Your task to perform on an android device: uninstall "Expedia: Hotels, Flights & Car" Image 0: 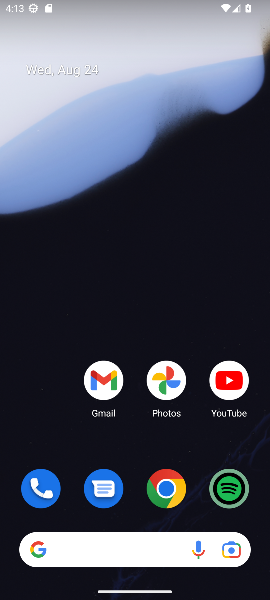
Step 0: drag from (135, 522) to (117, 17)
Your task to perform on an android device: uninstall "Expedia: Hotels, Flights & Car" Image 1: 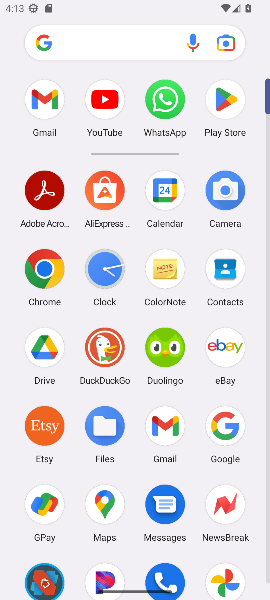
Step 1: click (230, 99)
Your task to perform on an android device: uninstall "Expedia: Hotels, Flights & Car" Image 2: 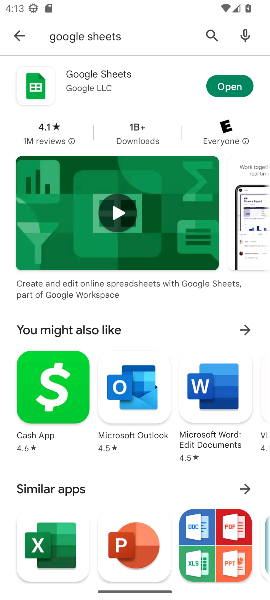
Step 2: click (204, 40)
Your task to perform on an android device: uninstall "Expedia: Hotels, Flights & Car" Image 3: 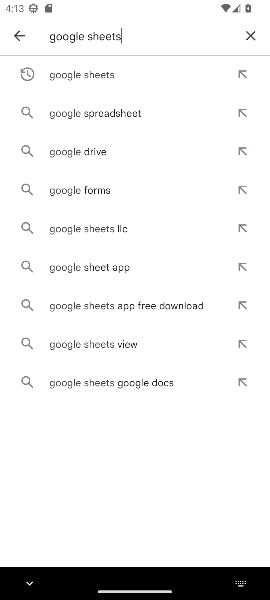
Step 3: click (248, 29)
Your task to perform on an android device: uninstall "Expedia: Hotels, Flights & Car" Image 4: 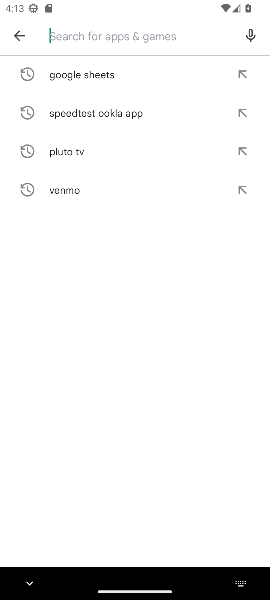
Step 4: type "expedia"
Your task to perform on an android device: uninstall "Expedia: Hotels, Flights & Car" Image 5: 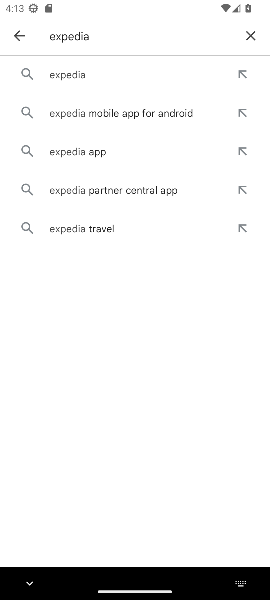
Step 5: click (122, 82)
Your task to perform on an android device: uninstall "Expedia: Hotels, Flights & Car" Image 6: 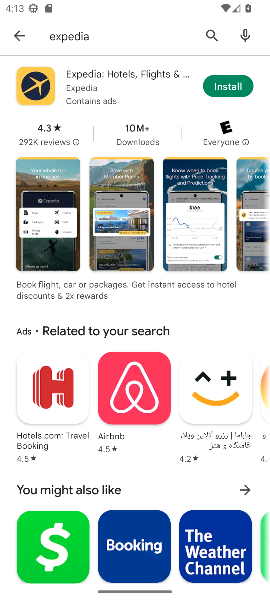
Step 6: click (212, 81)
Your task to perform on an android device: uninstall "Expedia: Hotels, Flights & Car" Image 7: 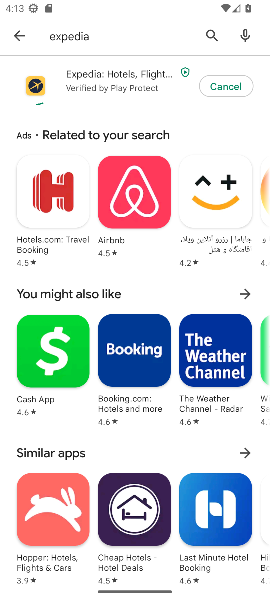
Step 7: task complete